Your task to perform on an android device: What is the news today? Image 0: 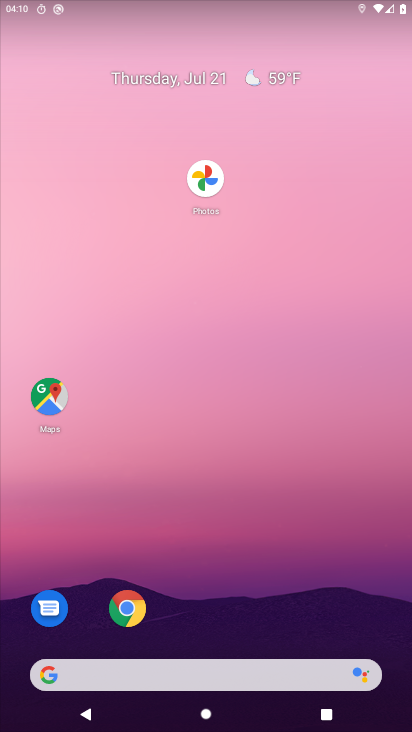
Step 0: press home button
Your task to perform on an android device: What is the news today? Image 1: 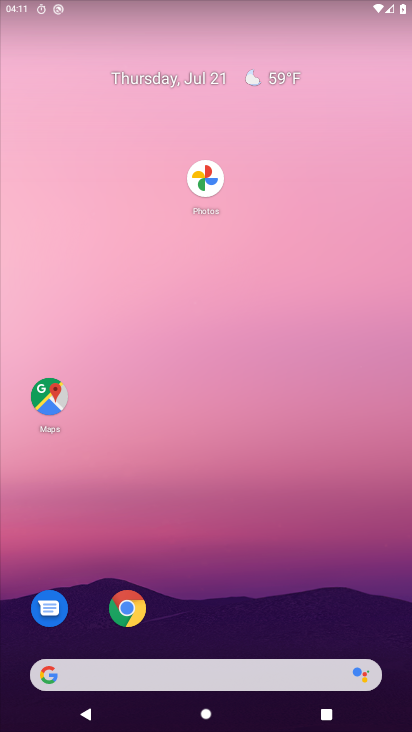
Step 1: task complete